Your task to perform on an android device: Open privacy settings Image 0: 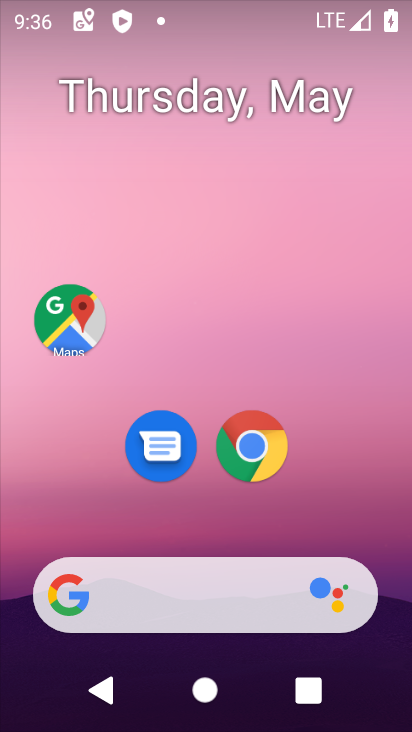
Step 0: drag from (404, 620) to (321, 119)
Your task to perform on an android device: Open privacy settings Image 1: 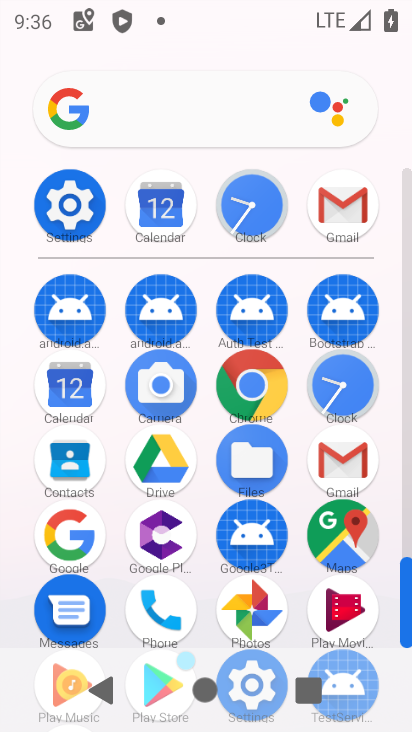
Step 1: click (408, 546)
Your task to perform on an android device: Open privacy settings Image 2: 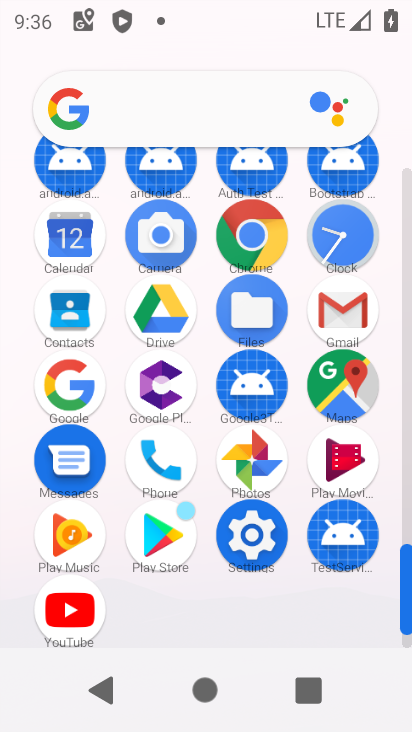
Step 2: click (252, 535)
Your task to perform on an android device: Open privacy settings Image 3: 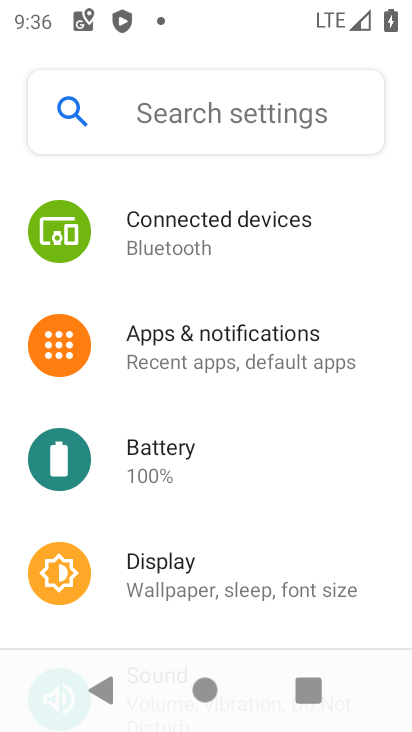
Step 3: drag from (353, 574) to (342, 191)
Your task to perform on an android device: Open privacy settings Image 4: 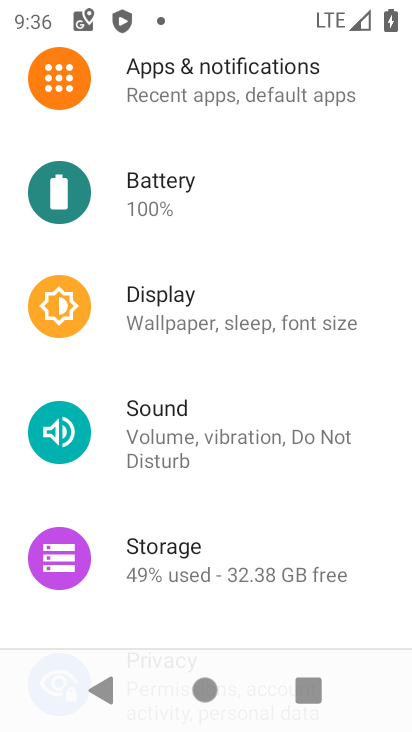
Step 4: drag from (347, 559) to (332, 171)
Your task to perform on an android device: Open privacy settings Image 5: 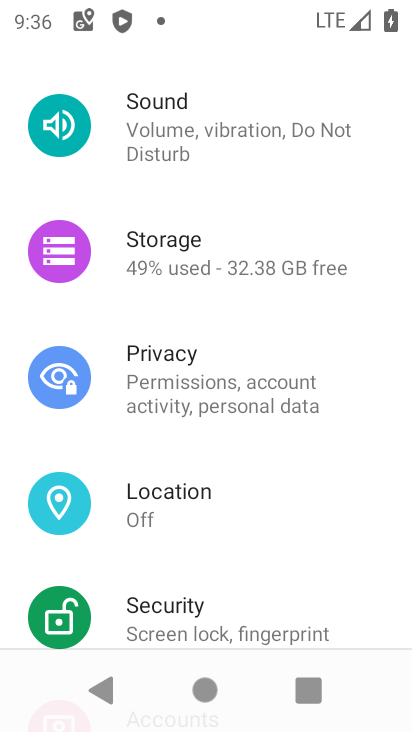
Step 5: click (147, 383)
Your task to perform on an android device: Open privacy settings Image 6: 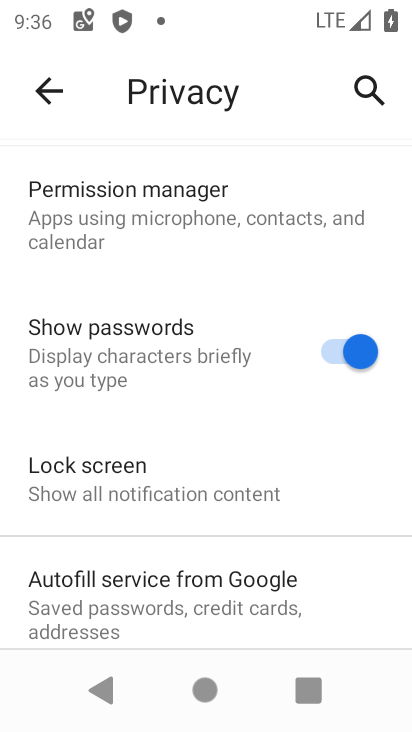
Step 6: drag from (319, 596) to (289, 265)
Your task to perform on an android device: Open privacy settings Image 7: 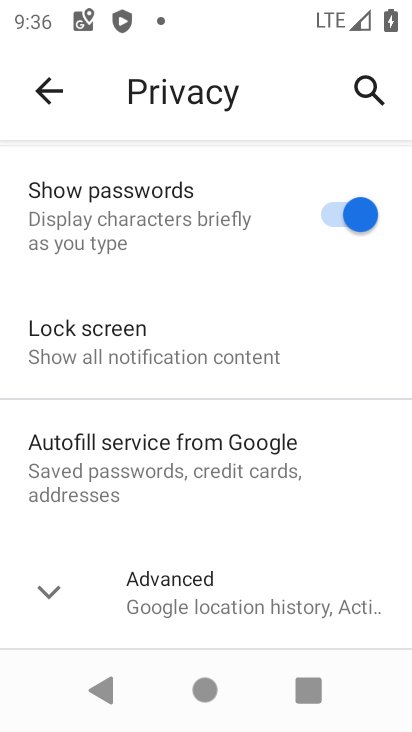
Step 7: click (45, 588)
Your task to perform on an android device: Open privacy settings Image 8: 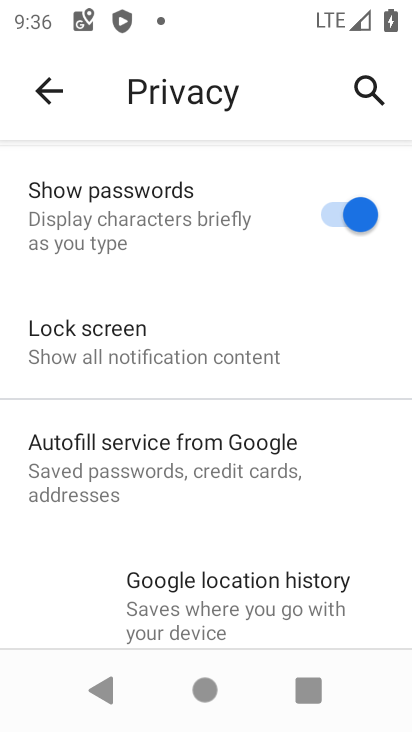
Step 8: task complete